Your task to perform on an android device: set an alarm Image 0: 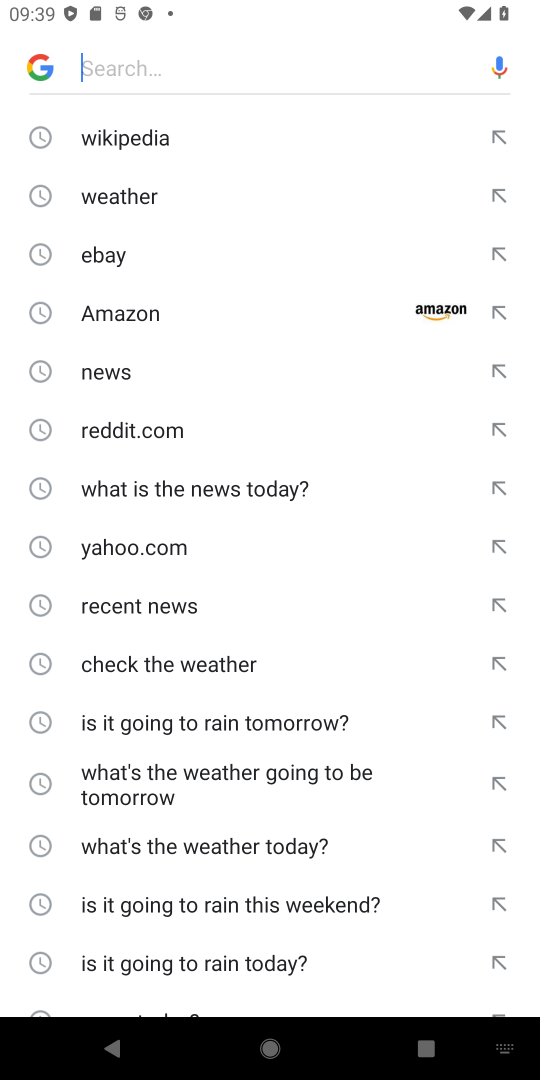
Step 0: press home button
Your task to perform on an android device: set an alarm Image 1: 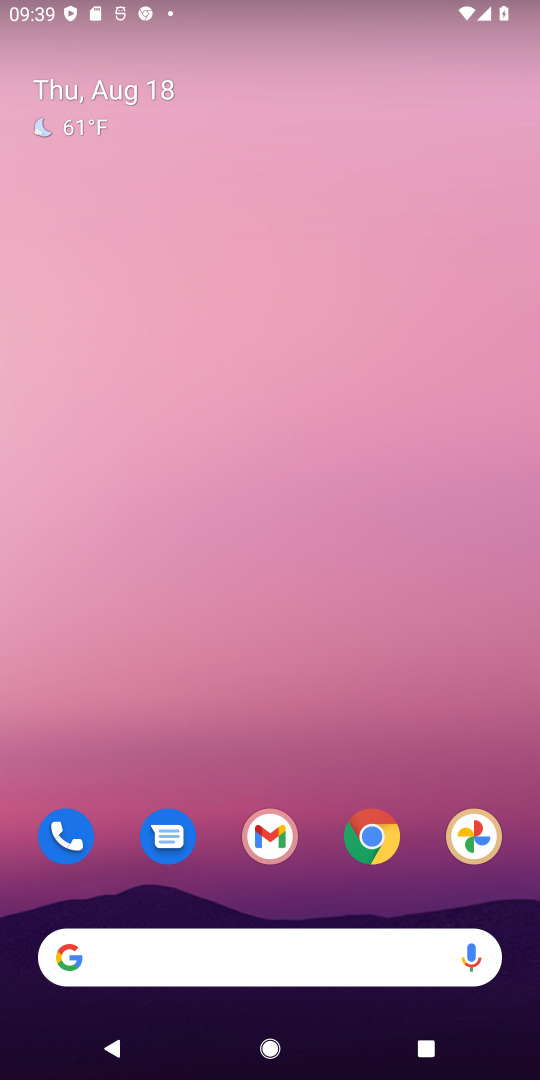
Step 1: drag from (316, 872) to (475, 77)
Your task to perform on an android device: set an alarm Image 2: 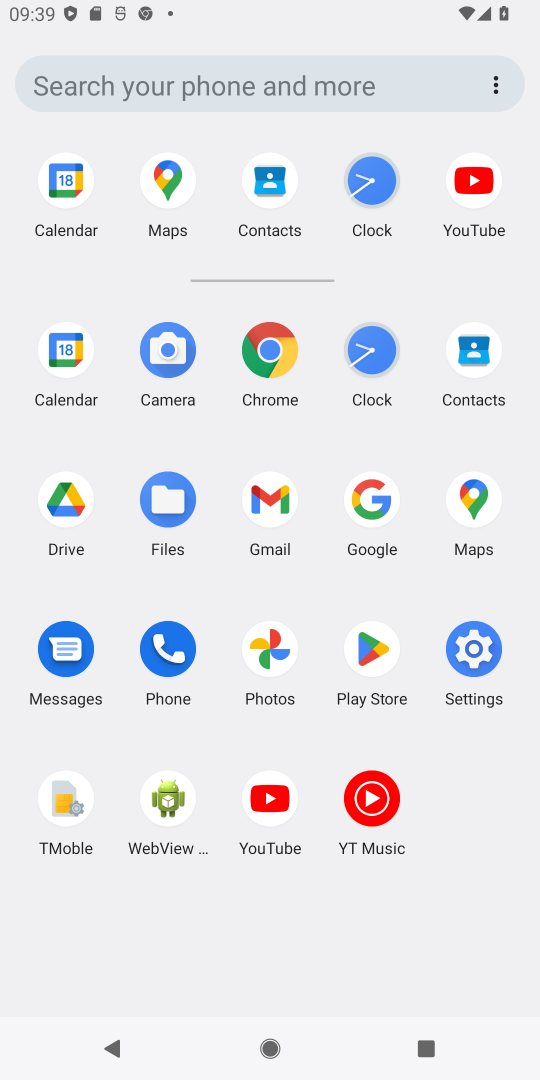
Step 2: click (379, 358)
Your task to perform on an android device: set an alarm Image 3: 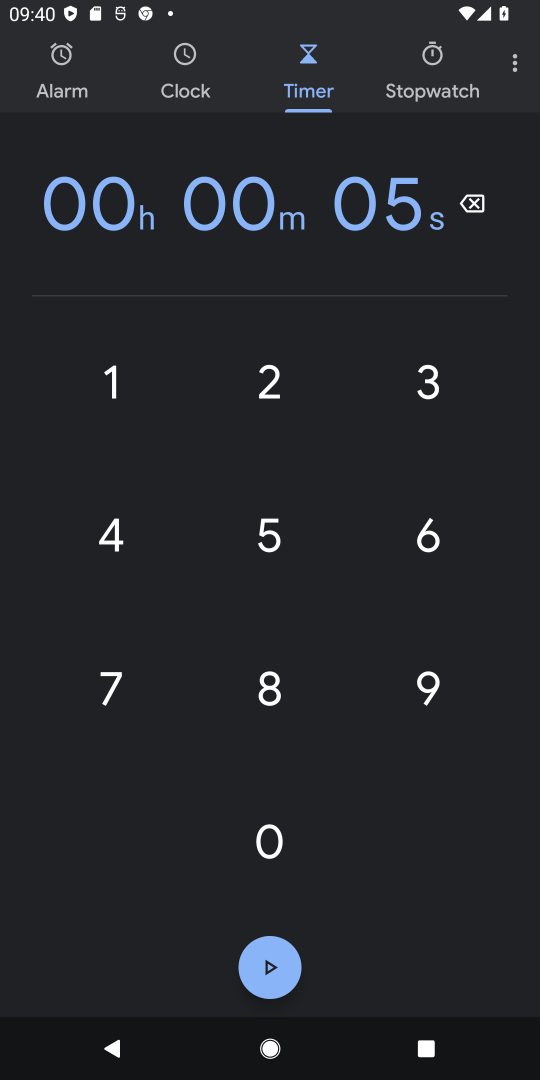
Step 3: click (79, 96)
Your task to perform on an android device: set an alarm Image 4: 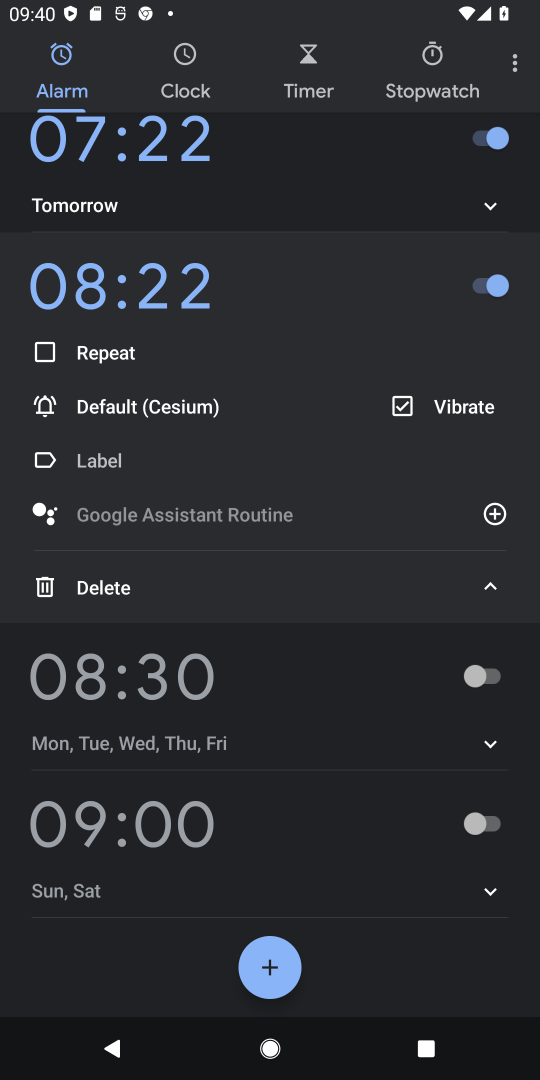
Step 4: click (271, 980)
Your task to perform on an android device: set an alarm Image 5: 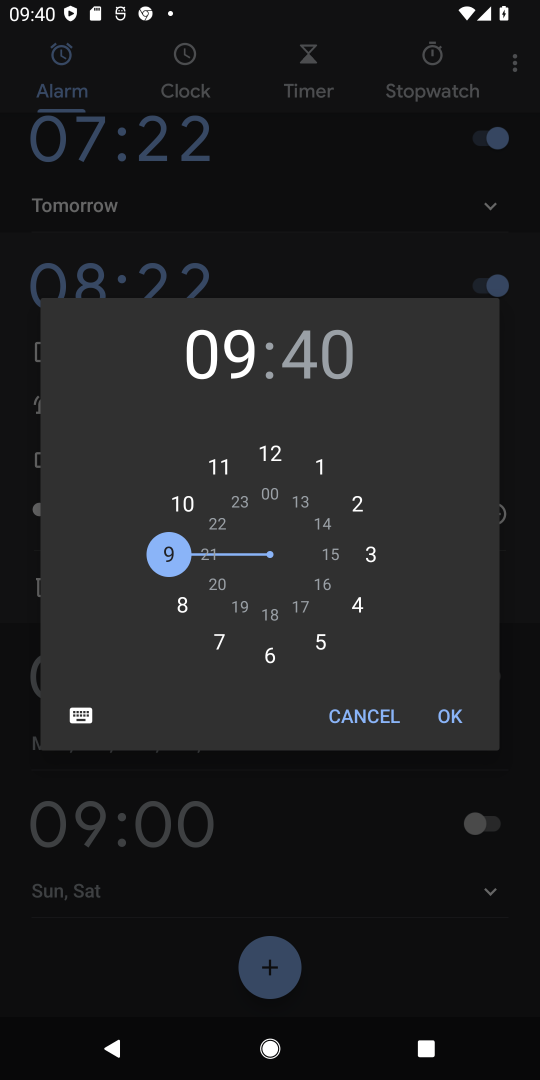
Step 5: click (455, 700)
Your task to perform on an android device: set an alarm Image 6: 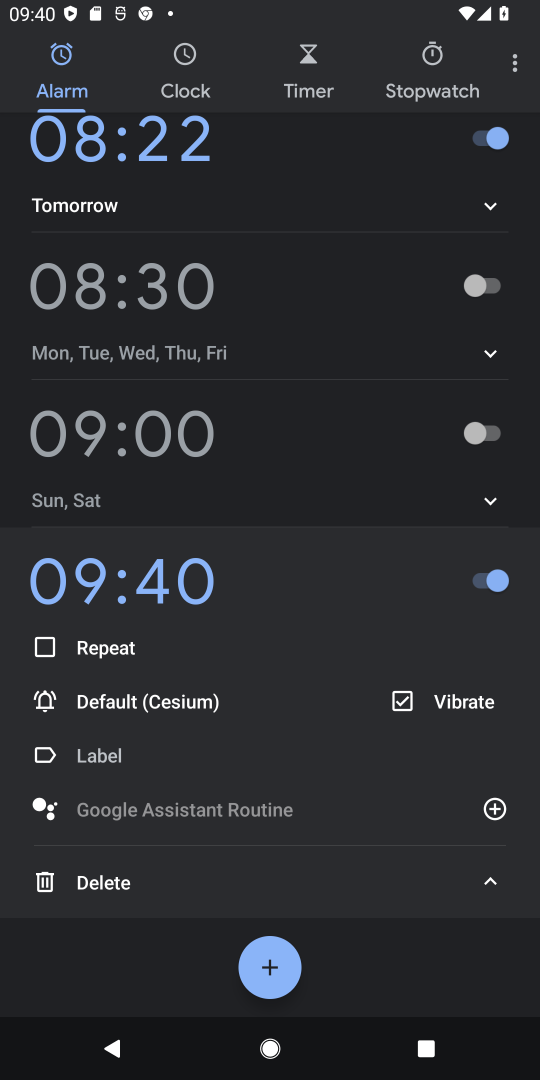
Step 6: task complete